Your task to perform on an android device: What's on Reddit this week Image 0: 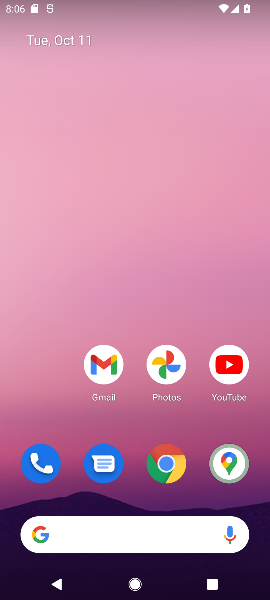
Step 0: drag from (98, 433) to (100, 67)
Your task to perform on an android device: What's on Reddit this week Image 1: 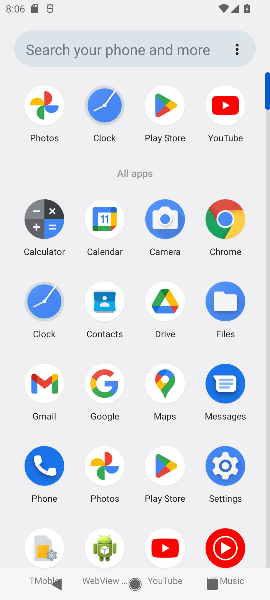
Step 1: click (107, 382)
Your task to perform on an android device: What's on Reddit this week Image 2: 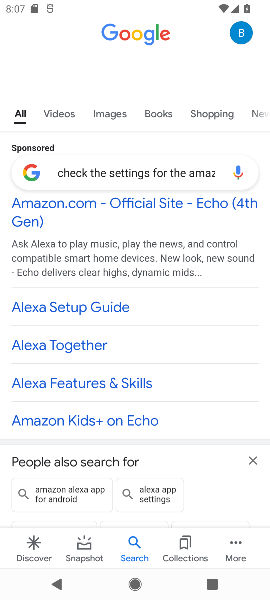
Step 2: click (117, 164)
Your task to perform on an android device: What's on Reddit this week Image 3: 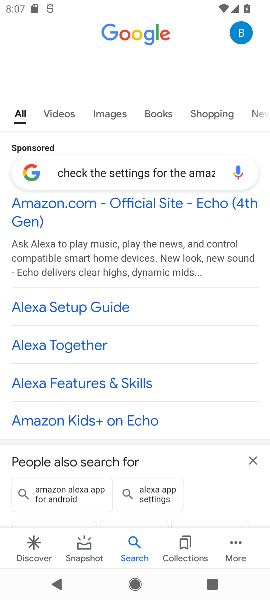
Step 3: click (117, 164)
Your task to perform on an android device: What's on Reddit this week Image 4: 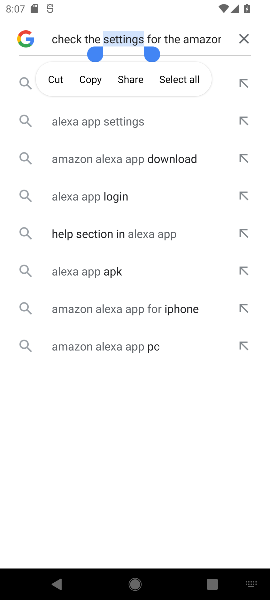
Step 4: click (237, 34)
Your task to perform on an android device: What's on Reddit this week Image 5: 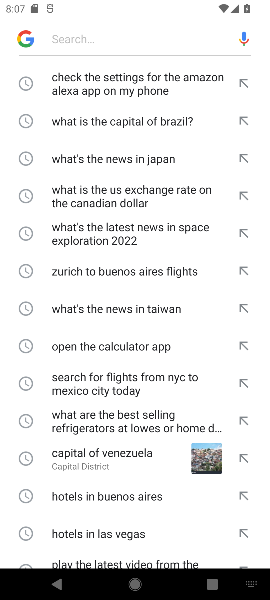
Step 5: click (114, 36)
Your task to perform on an android device: What's on Reddit this week Image 6: 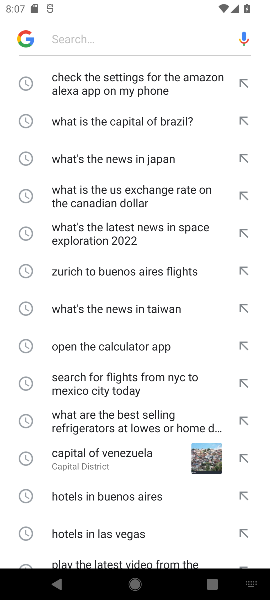
Step 6: type "What's on Reddit this week "
Your task to perform on an android device: What's on Reddit this week Image 7: 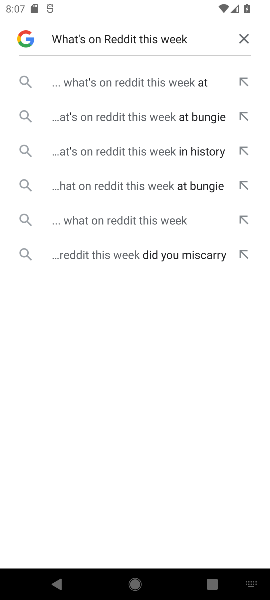
Step 7: click (133, 81)
Your task to perform on an android device: What's on Reddit this week Image 8: 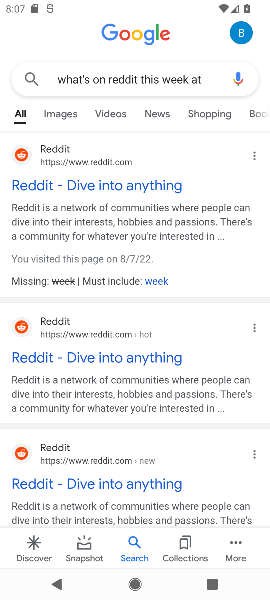
Step 8: click (115, 188)
Your task to perform on an android device: What's on Reddit this week Image 9: 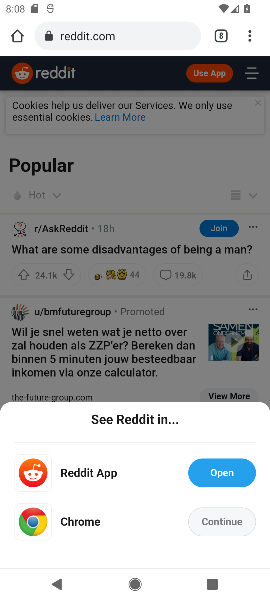
Step 9: click (214, 469)
Your task to perform on an android device: What's on Reddit this week Image 10: 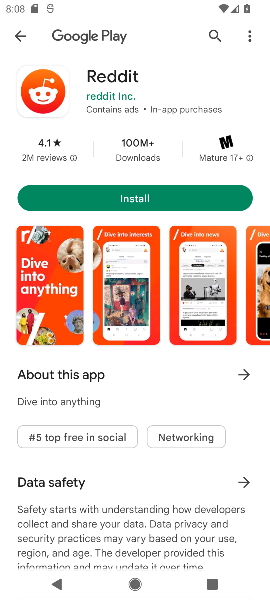
Step 10: click (160, 190)
Your task to perform on an android device: What's on Reddit this week Image 11: 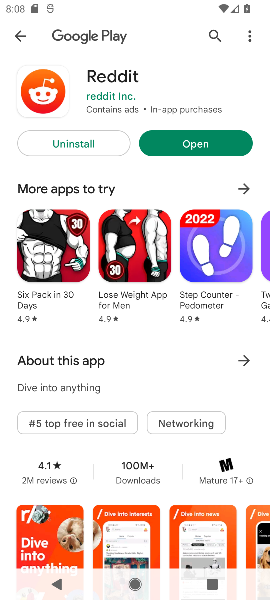
Step 11: press back button
Your task to perform on an android device: What's on Reddit this week Image 12: 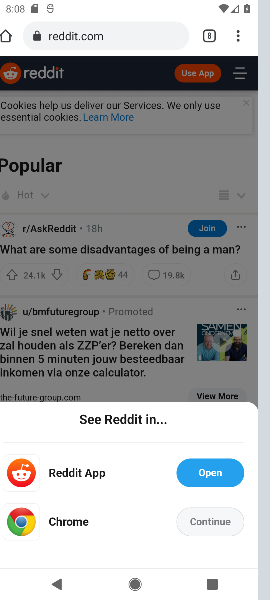
Step 12: drag from (252, 137) to (190, 133)
Your task to perform on an android device: What's on Reddit this week Image 13: 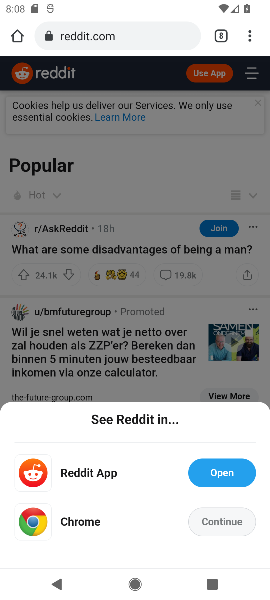
Step 13: click (215, 463)
Your task to perform on an android device: What's on Reddit this week Image 14: 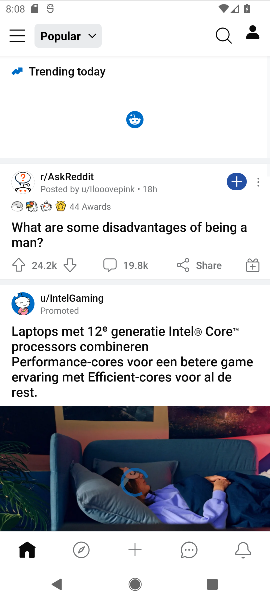
Step 14: task complete